Your task to perform on an android device: open app "TextNow: Call + Text Unlimited" (install if not already installed) and go to login screen Image 0: 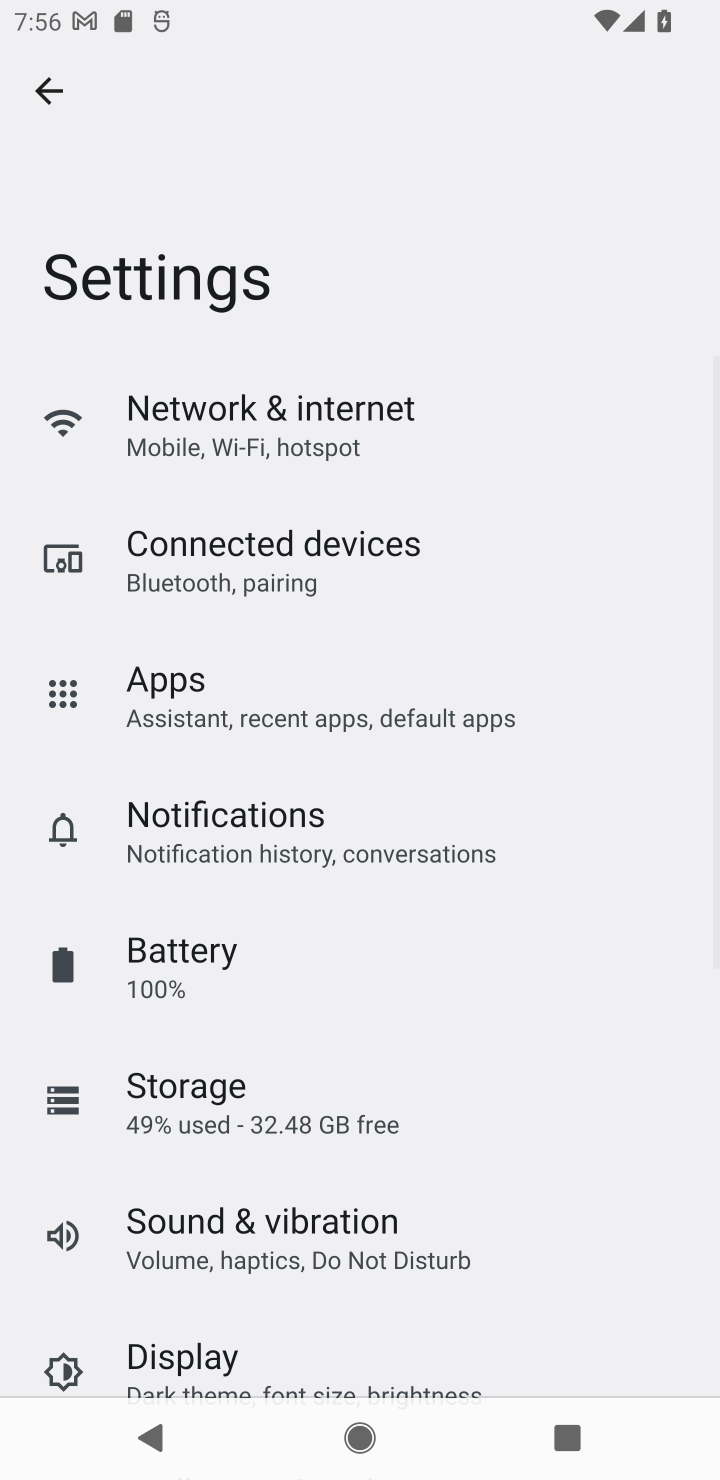
Step 0: press home button
Your task to perform on an android device: open app "TextNow: Call + Text Unlimited" (install if not already installed) and go to login screen Image 1: 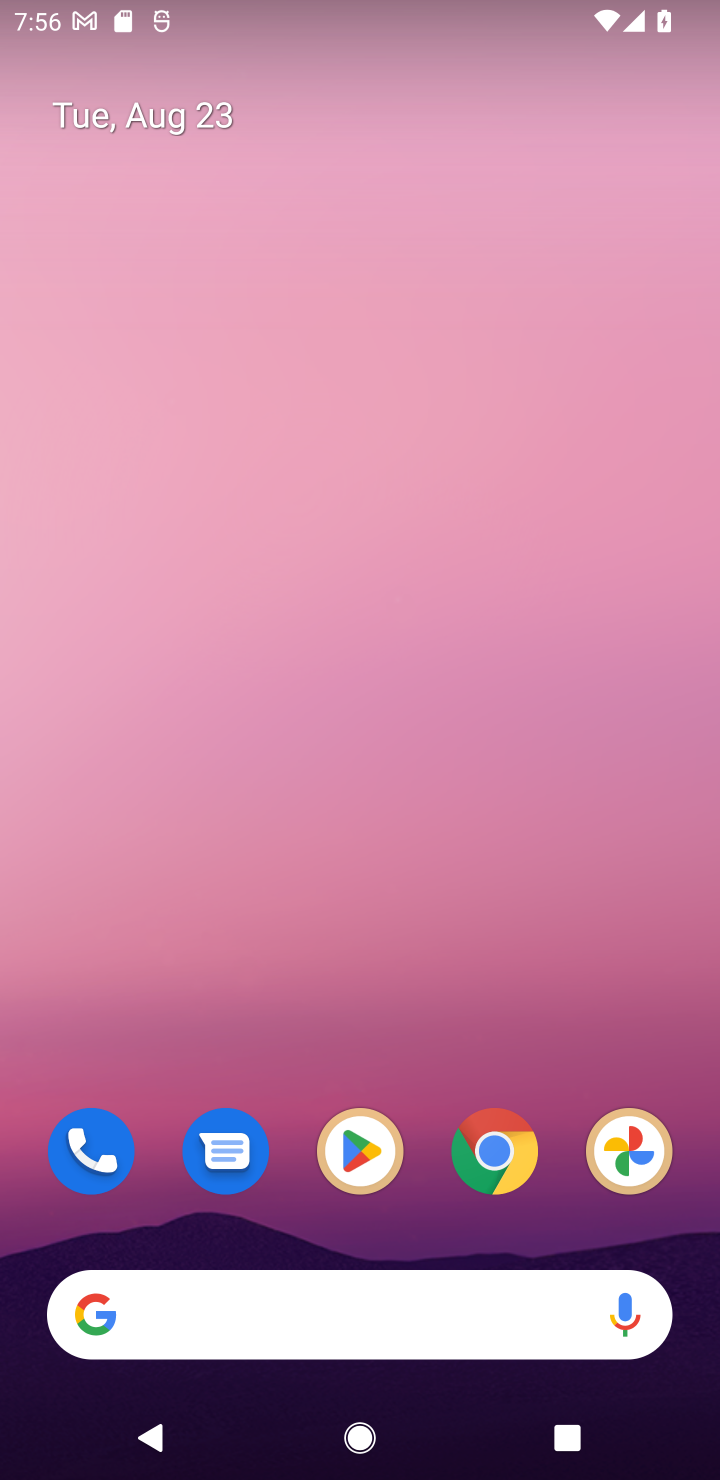
Step 1: click (351, 1162)
Your task to perform on an android device: open app "TextNow: Call + Text Unlimited" (install if not already installed) and go to login screen Image 2: 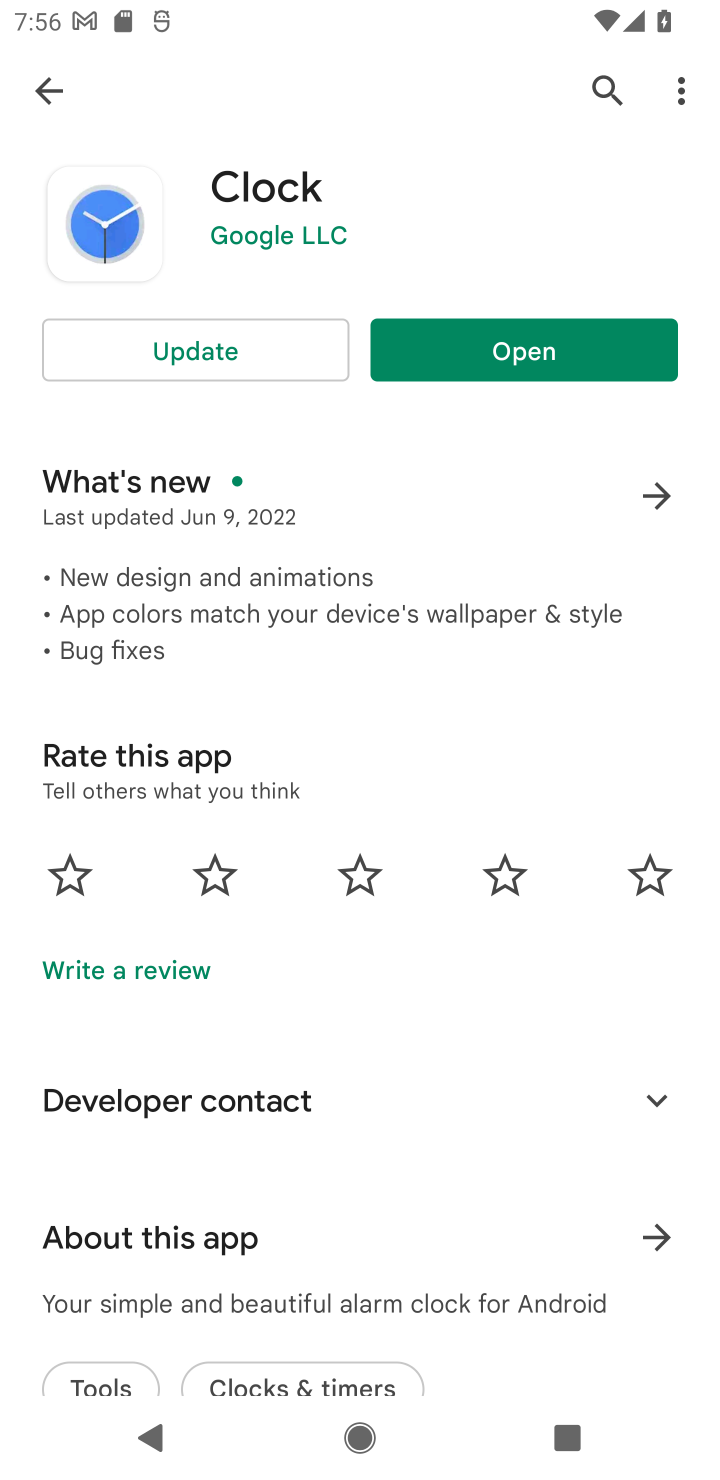
Step 2: click (50, 86)
Your task to perform on an android device: open app "TextNow: Call + Text Unlimited" (install if not already installed) and go to login screen Image 3: 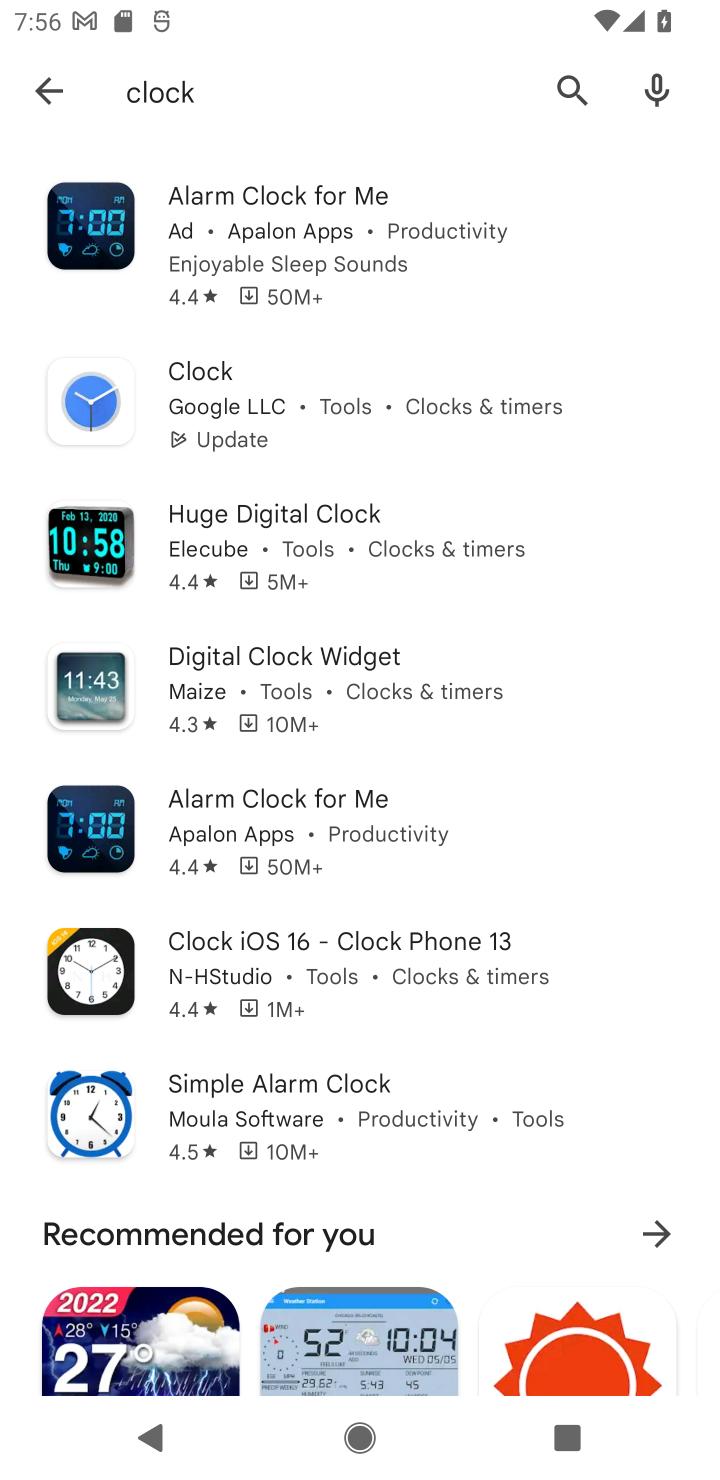
Step 3: click (41, 86)
Your task to perform on an android device: open app "TextNow: Call + Text Unlimited" (install if not already installed) and go to login screen Image 4: 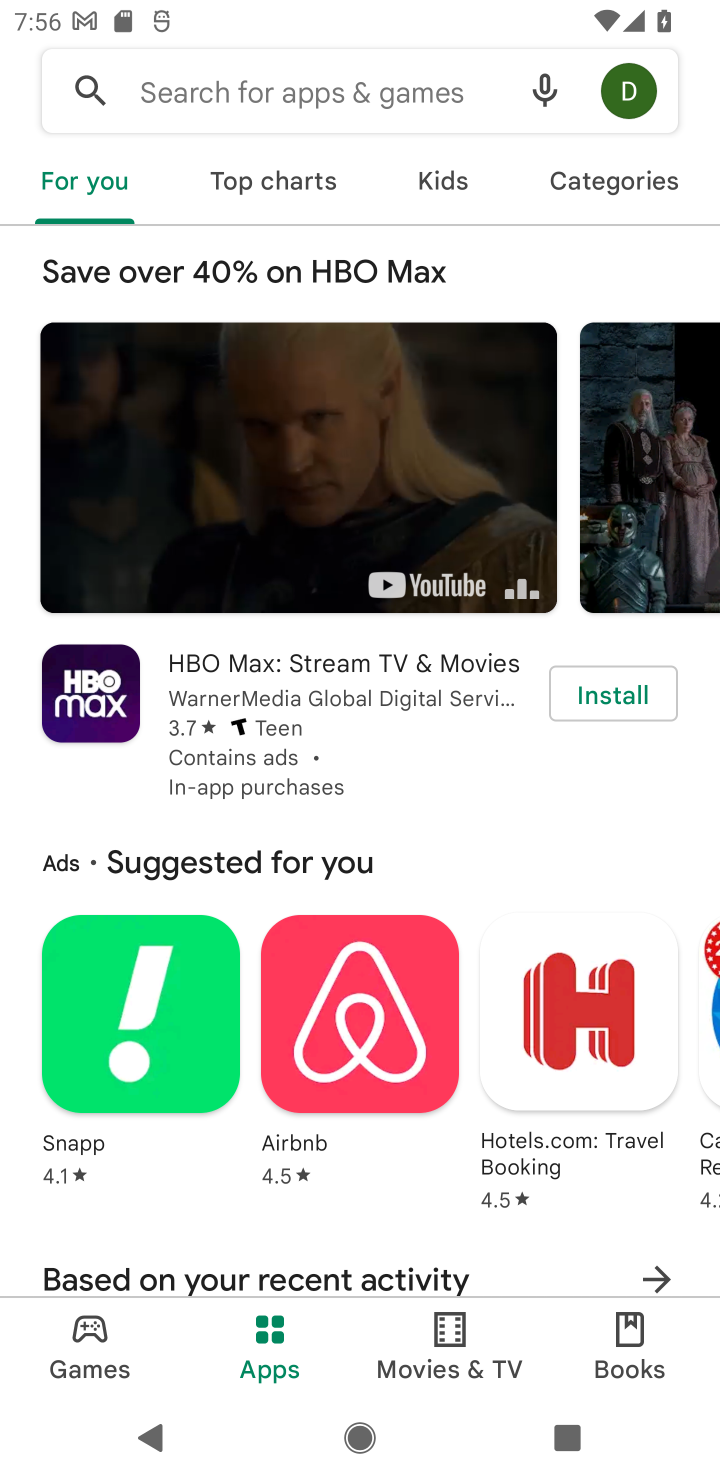
Step 4: click (345, 94)
Your task to perform on an android device: open app "TextNow: Call + Text Unlimited" (install if not already installed) and go to login screen Image 5: 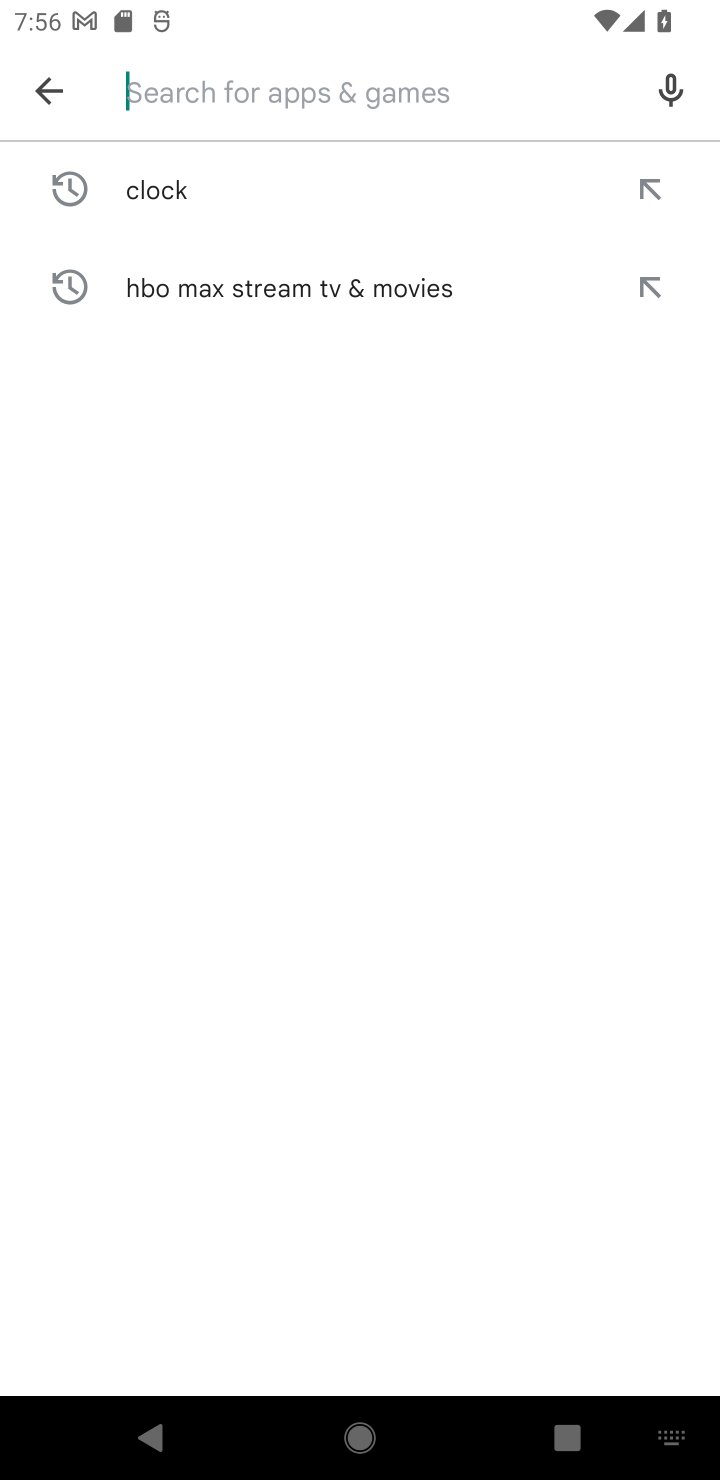
Step 5: type "TextNow: Call + Text Unlimited"
Your task to perform on an android device: open app "TextNow: Call + Text Unlimited" (install if not already installed) and go to login screen Image 6: 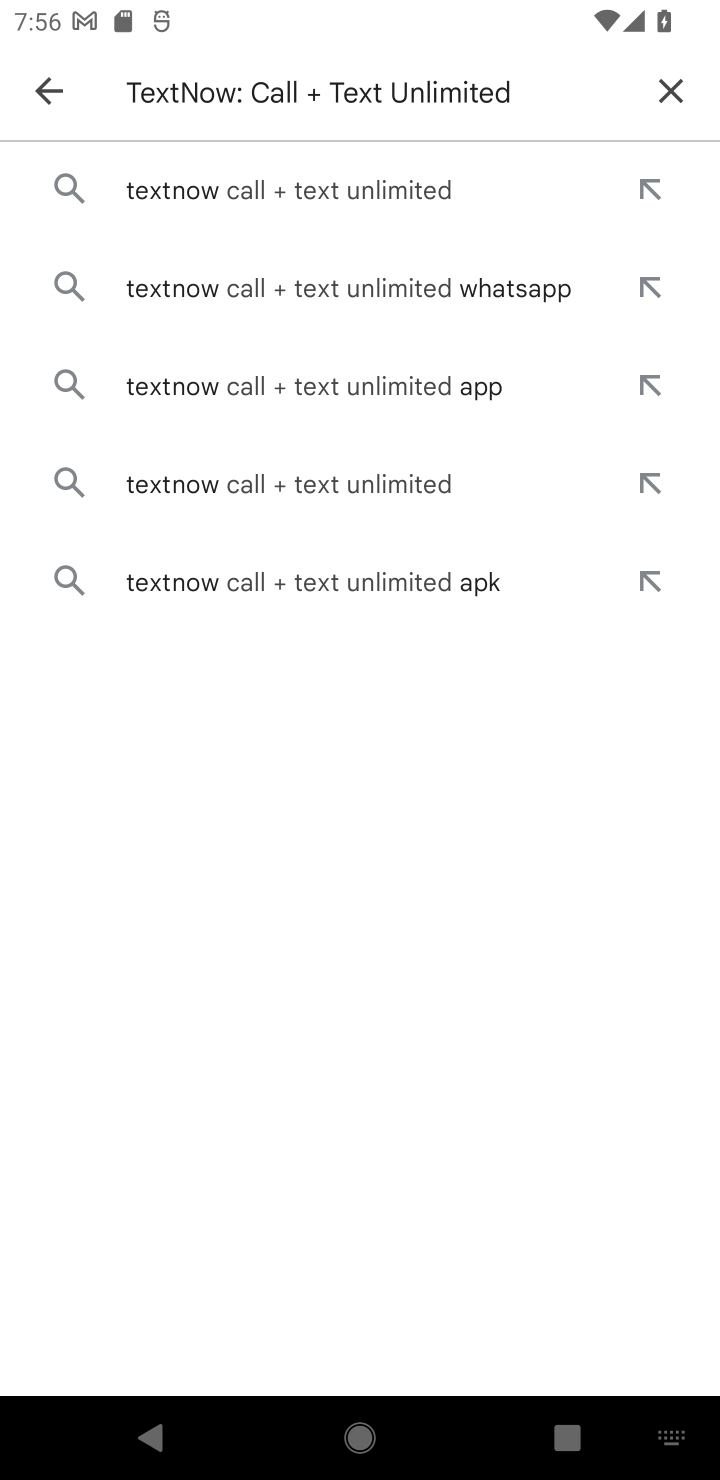
Step 6: click (368, 191)
Your task to perform on an android device: open app "TextNow: Call + Text Unlimited" (install if not already installed) and go to login screen Image 7: 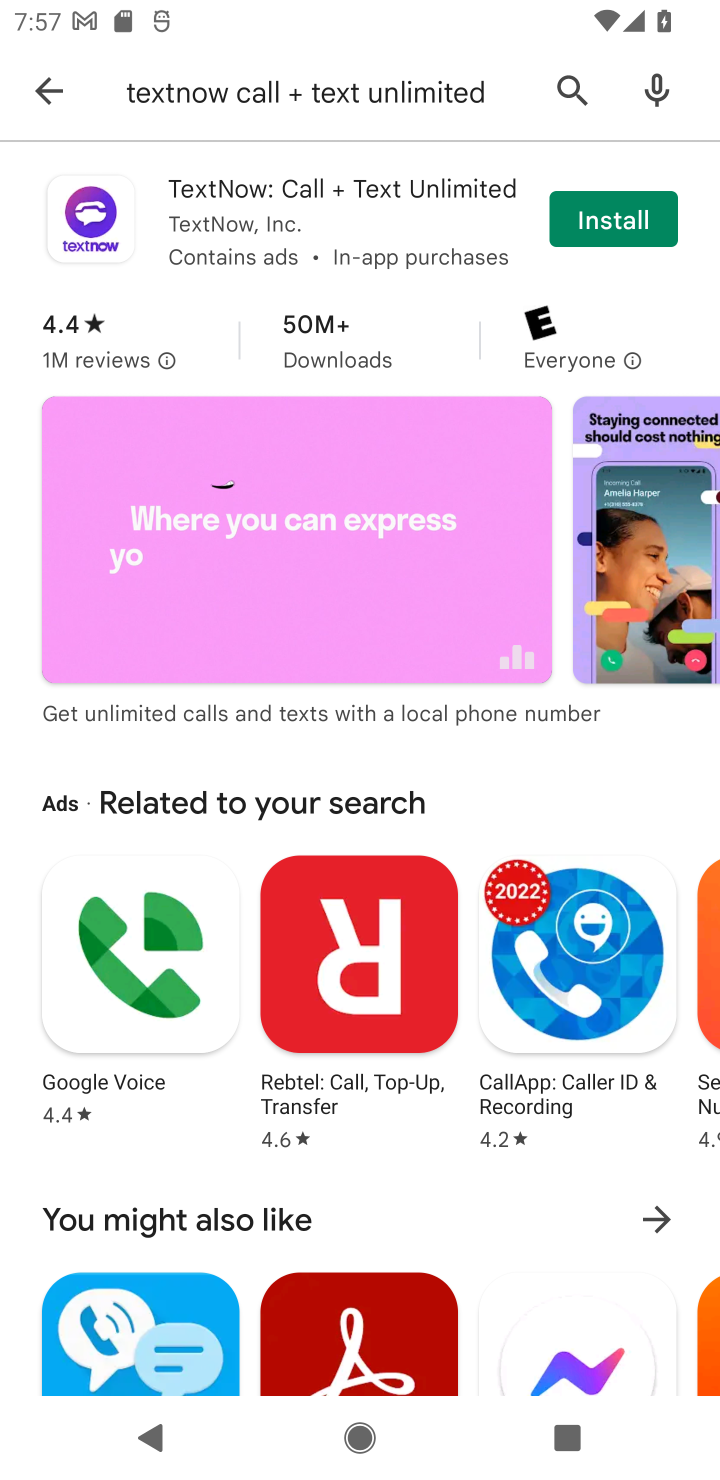
Step 7: task complete